Your task to perform on an android device: Clear all items from cart on target.com. Search for "beats solo 3" on target.com, select the first entry, and add it to the cart. Image 0: 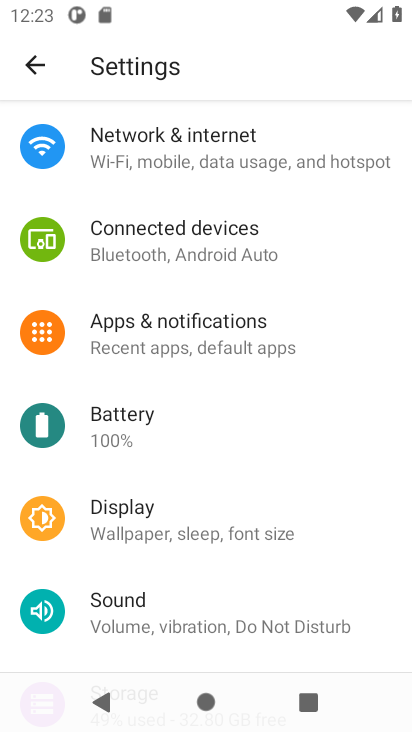
Step 0: press home button
Your task to perform on an android device: Clear all items from cart on target.com. Search for "beats solo 3" on target.com, select the first entry, and add it to the cart. Image 1: 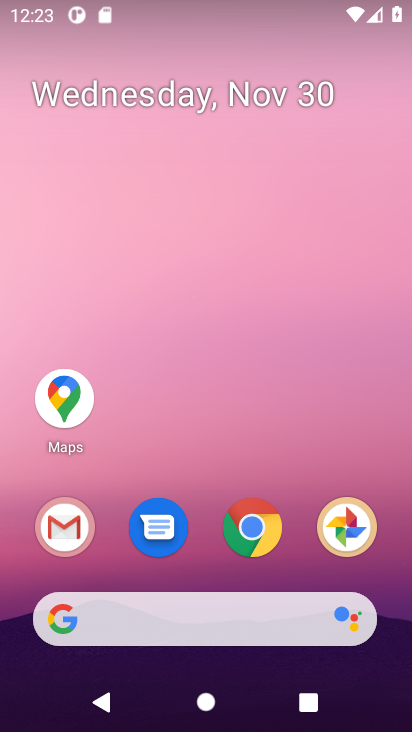
Step 1: click (151, 622)
Your task to perform on an android device: Clear all items from cart on target.com. Search for "beats solo 3" on target.com, select the first entry, and add it to the cart. Image 2: 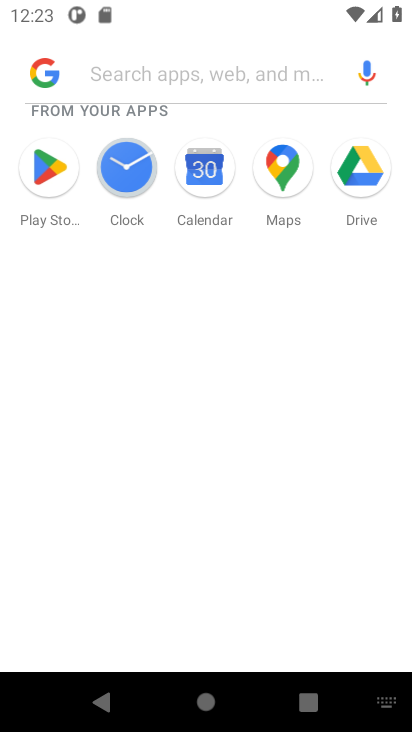
Step 2: press home button
Your task to perform on an android device: Clear all items from cart on target.com. Search for "beats solo 3" on target.com, select the first entry, and add it to the cart. Image 3: 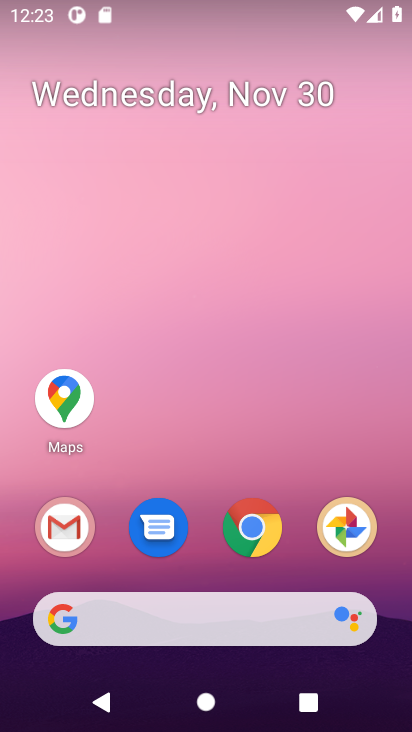
Step 3: click (273, 533)
Your task to perform on an android device: Clear all items from cart on target.com. Search for "beats solo 3" on target.com, select the first entry, and add it to the cart. Image 4: 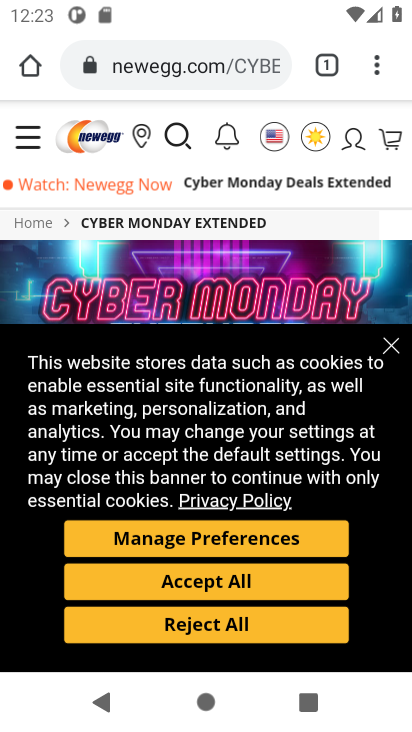
Step 4: click (174, 143)
Your task to perform on an android device: Clear all items from cart on target.com. Search for "beats solo 3" on target.com, select the first entry, and add it to the cart. Image 5: 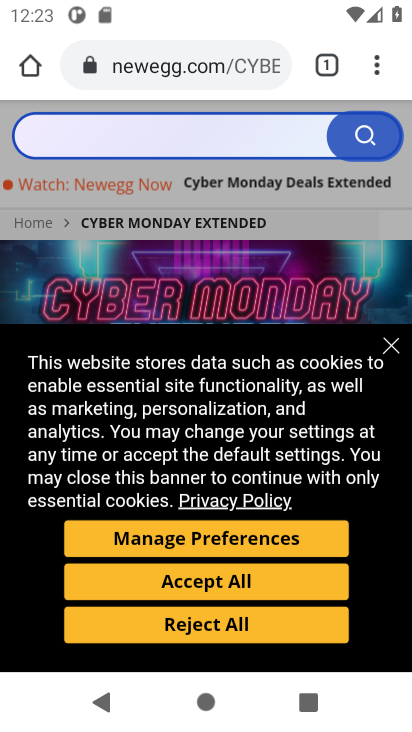
Step 5: type "t"
Your task to perform on an android device: Clear all items from cart on target.com. Search for "beats solo 3" on target.com, select the first entry, and add it to the cart. Image 6: 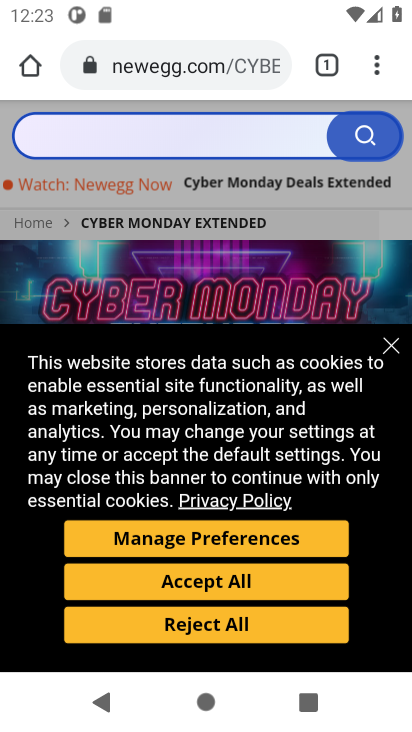
Step 6: click (170, 69)
Your task to perform on an android device: Clear all items from cart on target.com. Search for "beats solo 3" on target.com, select the first entry, and add it to the cart. Image 7: 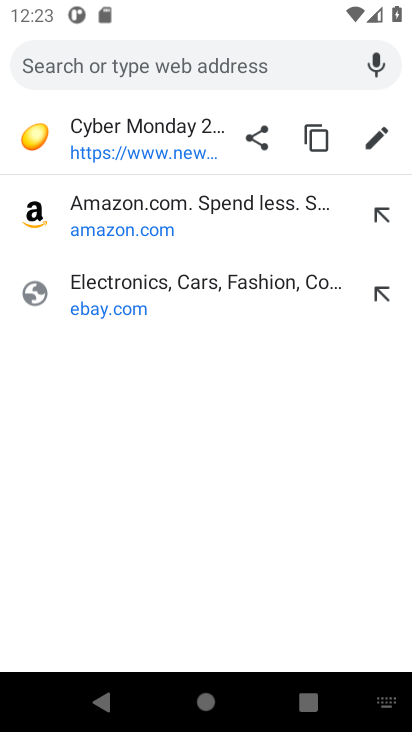
Step 7: type "target"
Your task to perform on an android device: Clear all items from cart on target.com. Search for "beats solo 3" on target.com, select the first entry, and add it to the cart. Image 8: 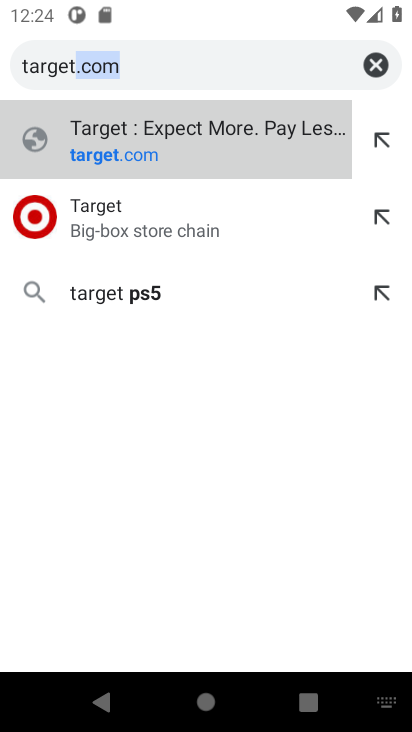
Step 8: click (197, 227)
Your task to perform on an android device: Clear all items from cart on target.com. Search for "beats solo 3" on target.com, select the first entry, and add it to the cart. Image 9: 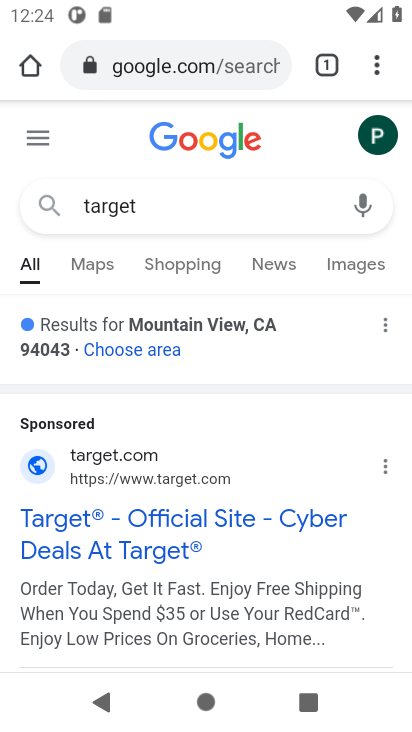
Step 9: click (86, 523)
Your task to perform on an android device: Clear all items from cart on target.com. Search for "beats solo 3" on target.com, select the first entry, and add it to the cart. Image 10: 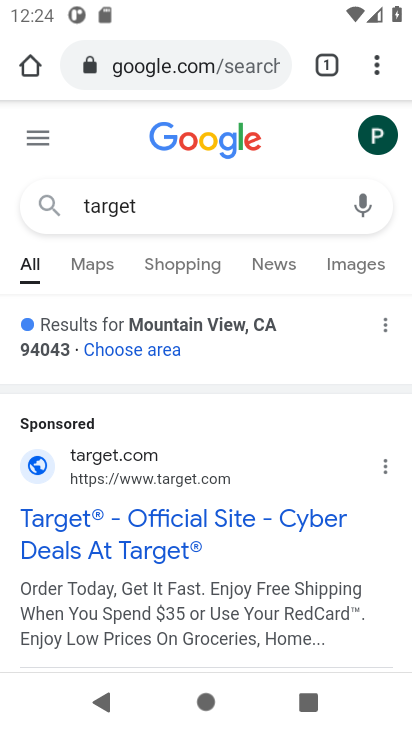
Step 10: click (88, 518)
Your task to perform on an android device: Clear all items from cart on target.com. Search for "beats solo 3" on target.com, select the first entry, and add it to the cart. Image 11: 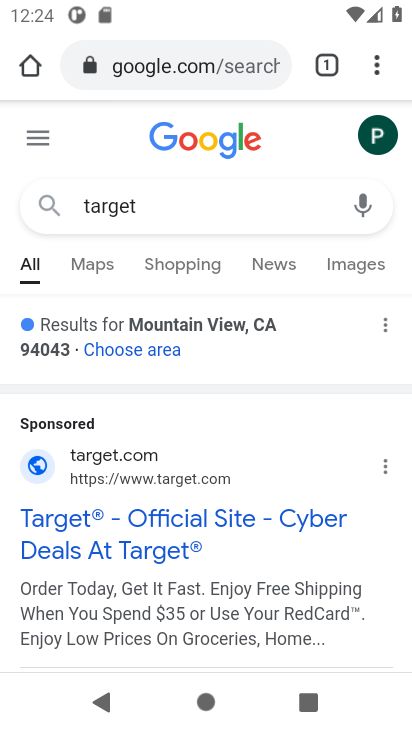
Step 11: click (88, 518)
Your task to perform on an android device: Clear all items from cart on target.com. Search for "beats solo 3" on target.com, select the first entry, and add it to the cart. Image 12: 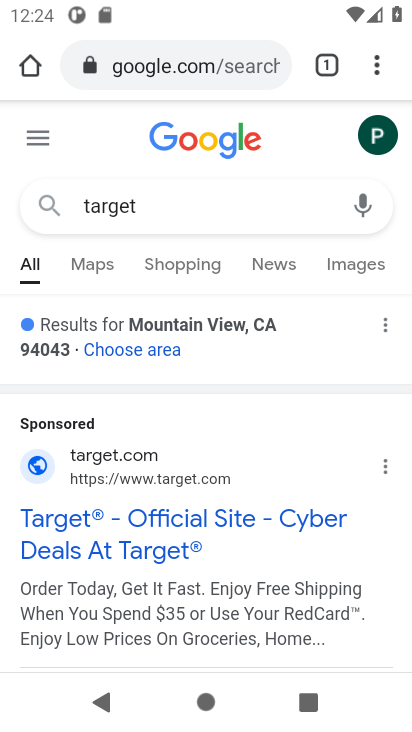
Step 12: click (88, 518)
Your task to perform on an android device: Clear all items from cart on target.com. Search for "beats solo 3" on target.com, select the first entry, and add it to the cart. Image 13: 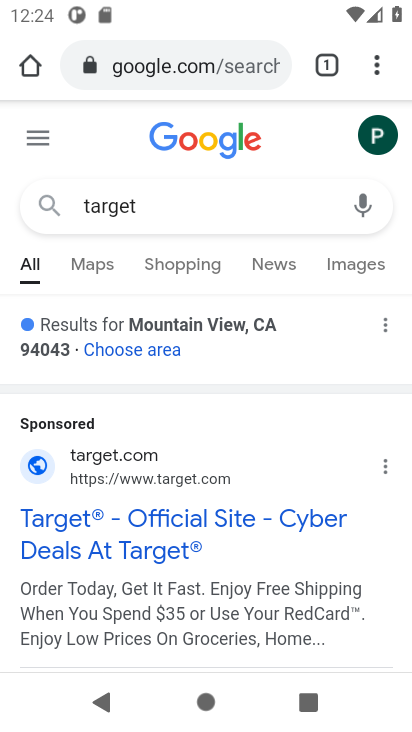
Step 13: click (88, 518)
Your task to perform on an android device: Clear all items from cart on target.com. Search for "beats solo 3" on target.com, select the first entry, and add it to the cart. Image 14: 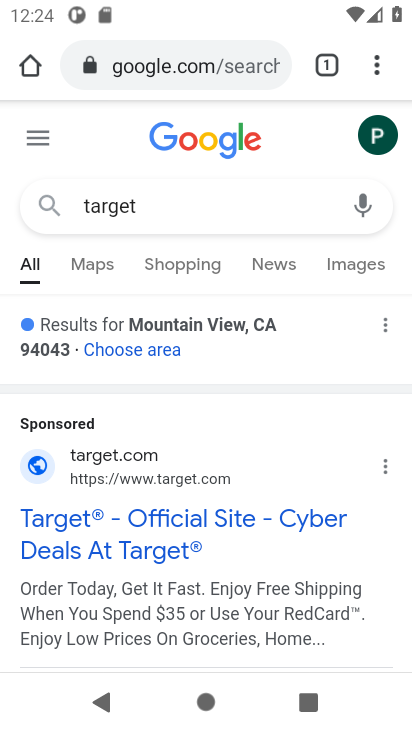
Step 14: click (113, 529)
Your task to perform on an android device: Clear all items from cart on target.com. Search for "beats solo 3" on target.com, select the first entry, and add it to the cart. Image 15: 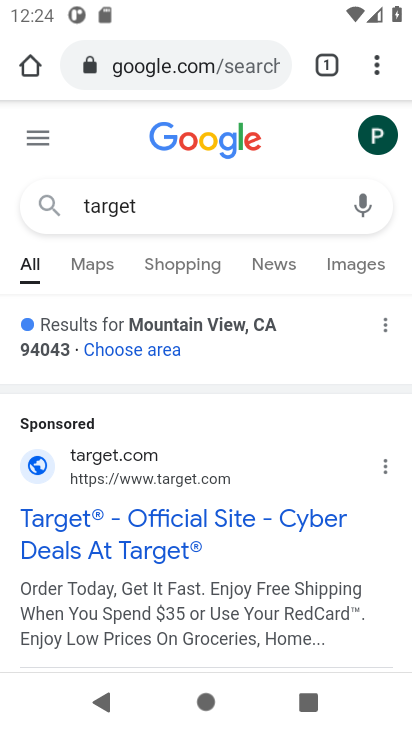
Step 15: click (113, 529)
Your task to perform on an android device: Clear all items from cart on target.com. Search for "beats solo 3" on target.com, select the first entry, and add it to the cart. Image 16: 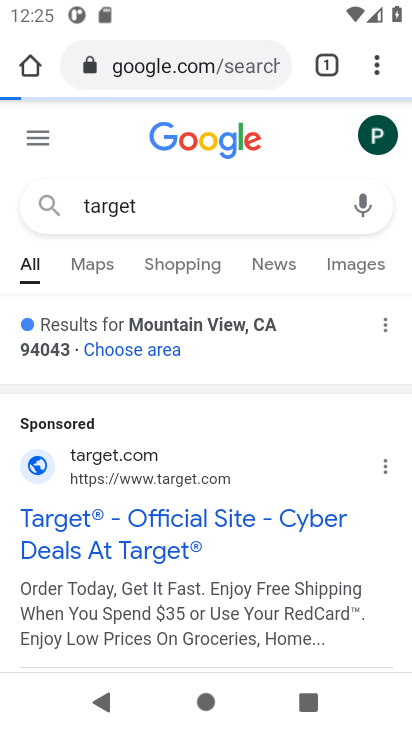
Step 16: click (113, 529)
Your task to perform on an android device: Clear all items from cart on target.com. Search for "beats solo 3" on target.com, select the first entry, and add it to the cart. Image 17: 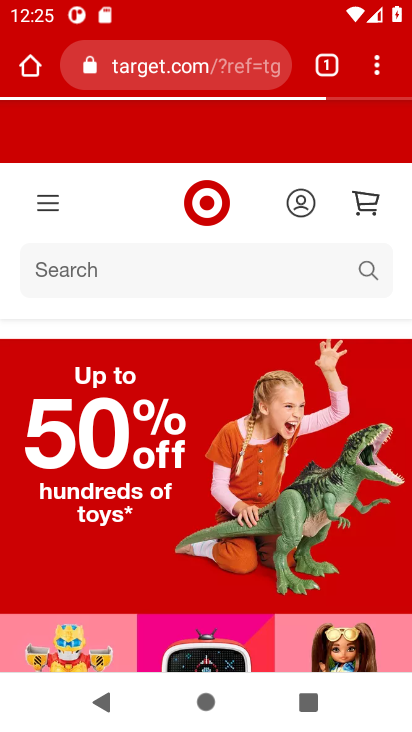
Step 17: click (92, 287)
Your task to perform on an android device: Clear all items from cart on target.com. Search for "beats solo 3" on target.com, select the first entry, and add it to the cart. Image 18: 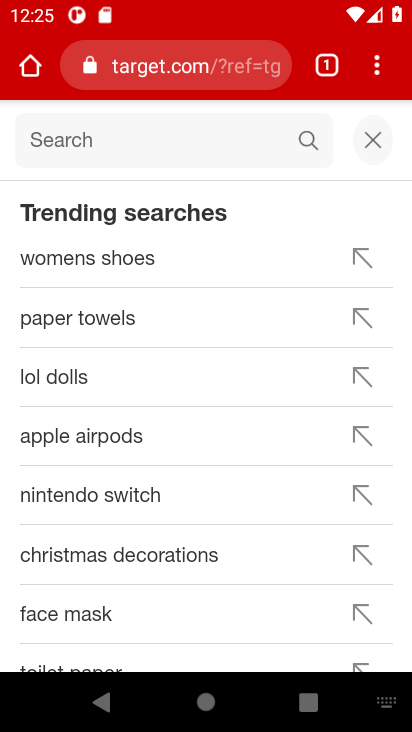
Step 18: type "beats solo 3"
Your task to perform on an android device: Clear all items from cart on target.com. Search for "beats solo 3" on target.com, select the first entry, and add it to the cart. Image 19: 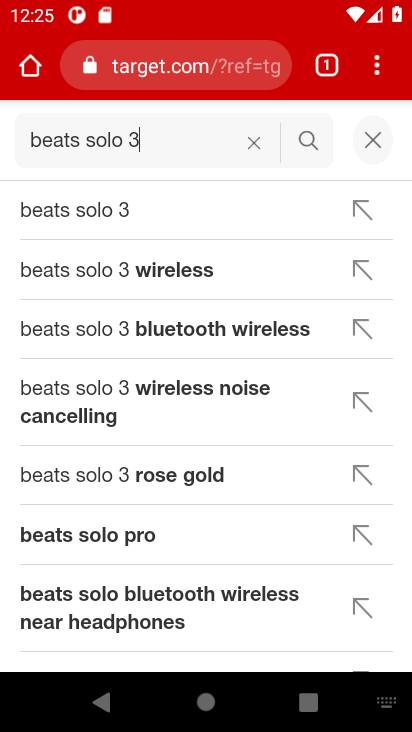
Step 19: click (300, 151)
Your task to perform on an android device: Clear all items from cart on target.com. Search for "beats solo 3" on target.com, select the first entry, and add it to the cart. Image 20: 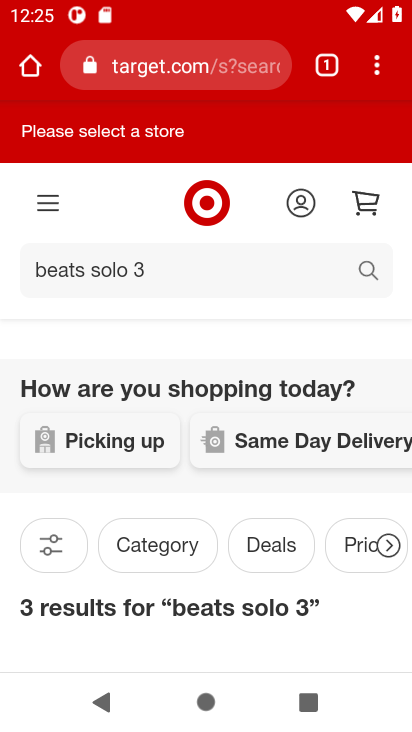
Step 20: drag from (245, 500) to (214, 37)
Your task to perform on an android device: Clear all items from cart on target.com. Search for "beats solo 3" on target.com, select the first entry, and add it to the cart. Image 21: 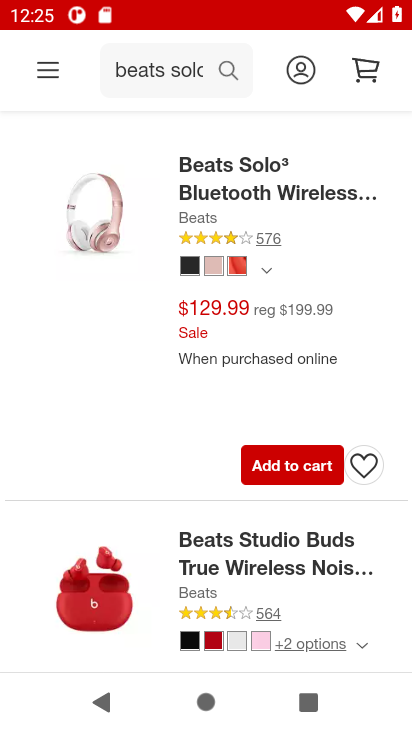
Step 21: click (283, 413)
Your task to perform on an android device: Clear all items from cart on target.com. Search for "beats solo 3" on target.com, select the first entry, and add it to the cart. Image 22: 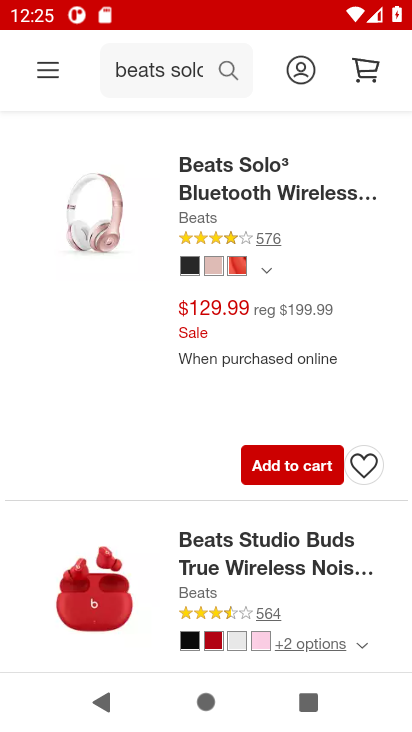
Step 22: click (283, 444)
Your task to perform on an android device: Clear all items from cart on target.com. Search for "beats solo 3" on target.com, select the first entry, and add it to the cart. Image 23: 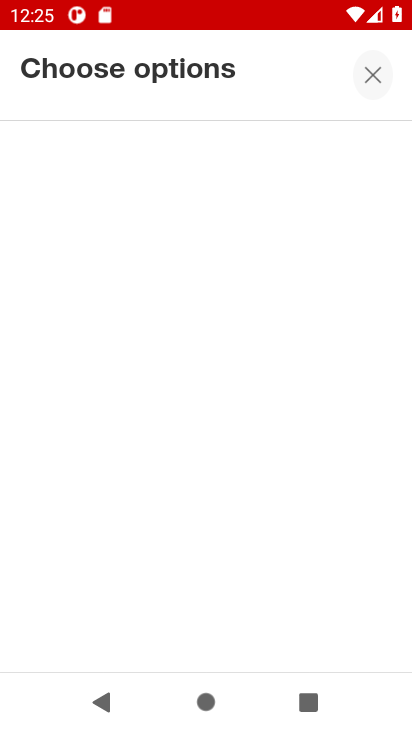
Step 23: task complete